Your task to perform on an android device: delete the emails in spam in the gmail app Image 0: 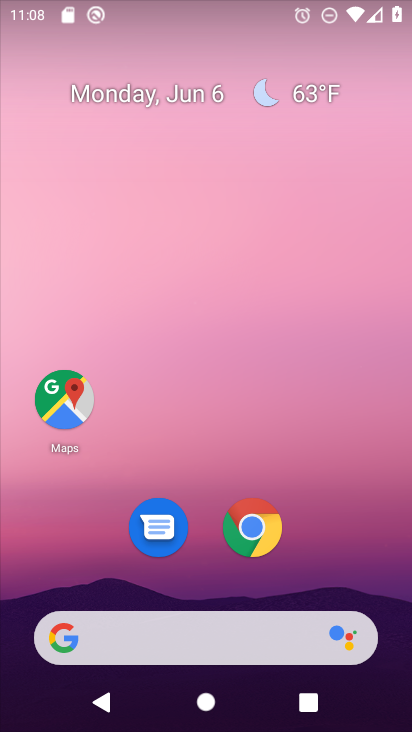
Step 0: drag from (359, 564) to (317, 185)
Your task to perform on an android device: delete the emails in spam in the gmail app Image 1: 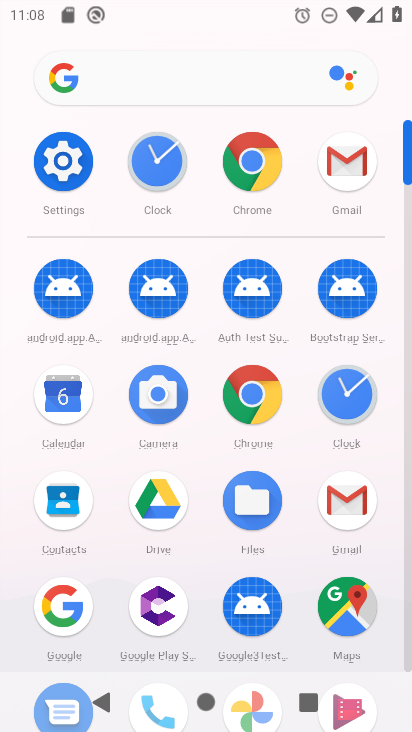
Step 1: click (348, 183)
Your task to perform on an android device: delete the emails in spam in the gmail app Image 2: 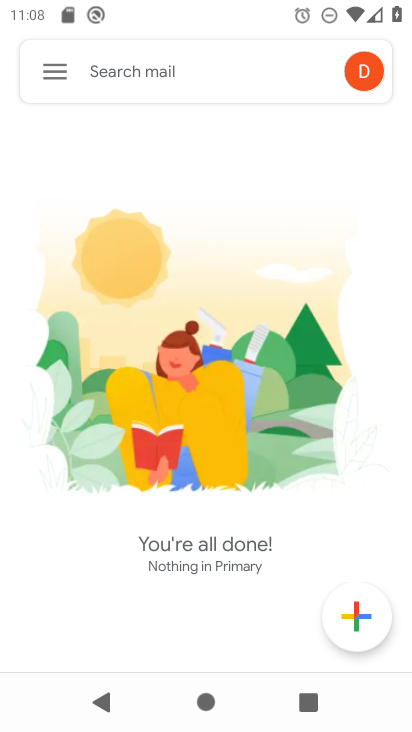
Step 2: click (44, 67)
Your task to perform on an android device: delete the emails in spam in the gmail app Image 3: 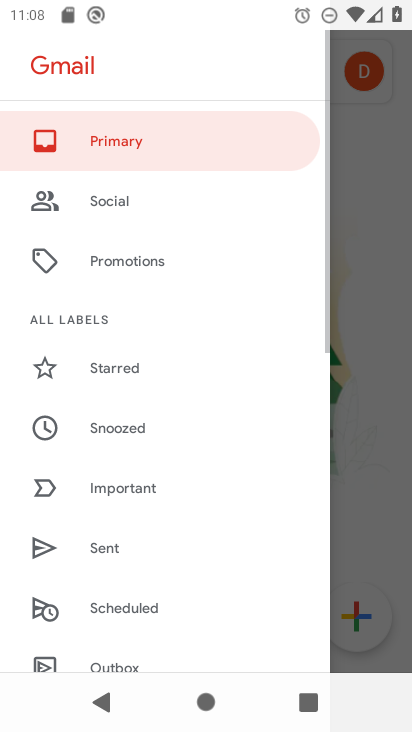
Step 3: drag from (239, 331) to (236, 257)
Your task to perform on an android device: delete the emails in spam in the gmail app Image 4: 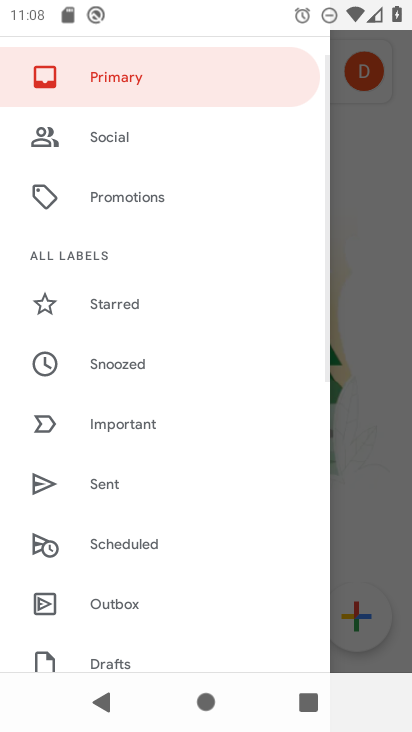
Step 4: drag from (263, 414) to (273, 303)
Your task to perform on an android device: delete the emails in spam in the gmail app Image 5: 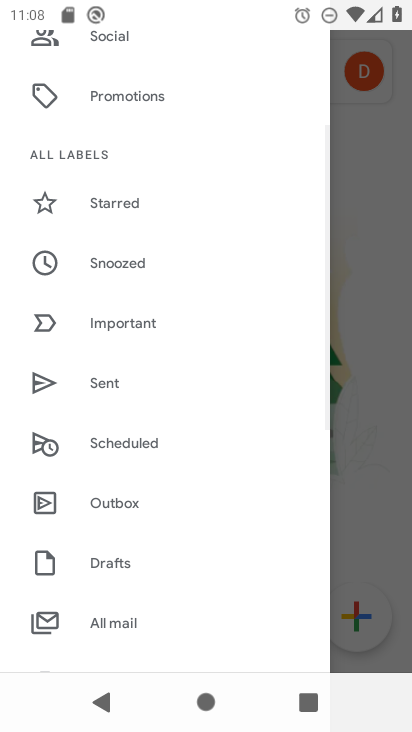
Step 5: drag from (250, 416) to (269, 318)
Your task to perform on an android device: delete the emails in spam in the gmail app Image 6: 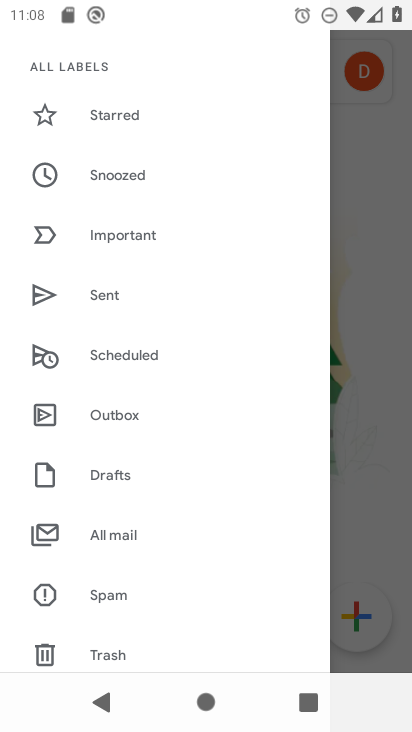
Step 6: drag from (278, 416) to (290, 316)
Your task to perform on an android device: delete the emails in spam in the gmail app Image 7: 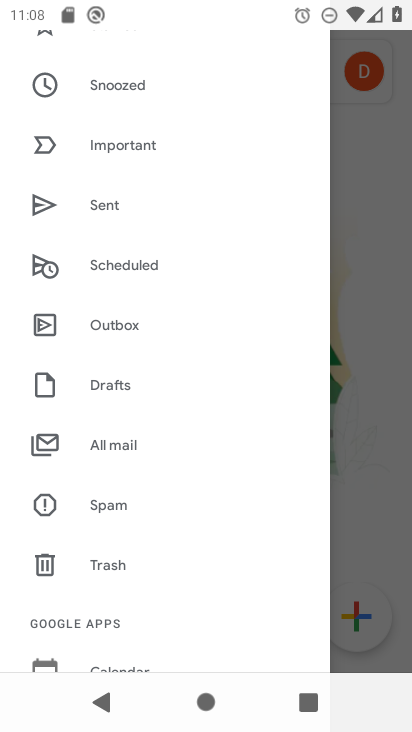
Step 7: drag from (267, 427) to (248, 340)
Your task to perform on an android device: delete the emails in spam in the gmail app Image 8: 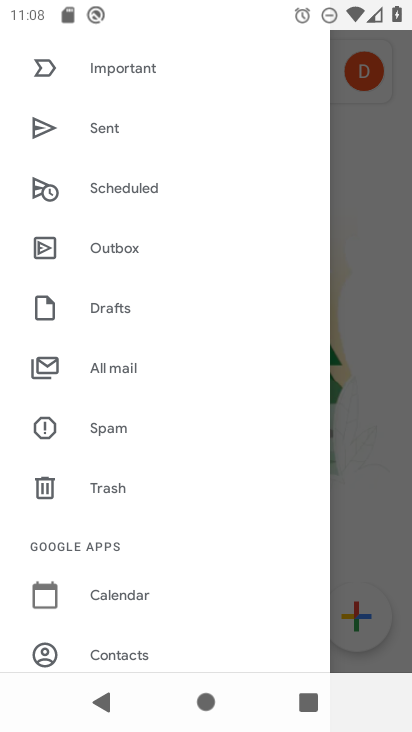
Step 8: drag from (243, 471) to (227, 343)
Your task to perform on an android device: delete the emails in spam in the gmail app Image 9: 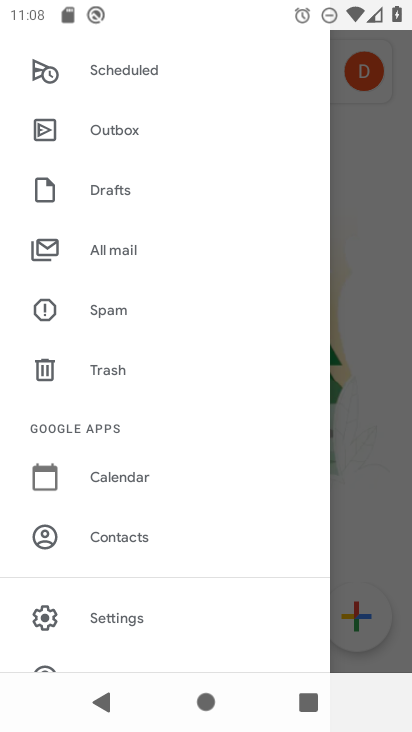
Step 9: click (120, 298)
Your task to perform on an android device: delete the emails in spam in the gmail app Image 10: 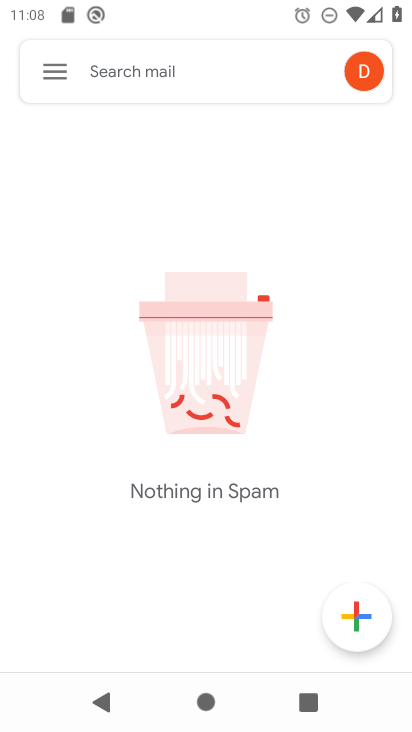
Step 10: task complete